Your task to perform on an android device: turn off wifi Image 0: 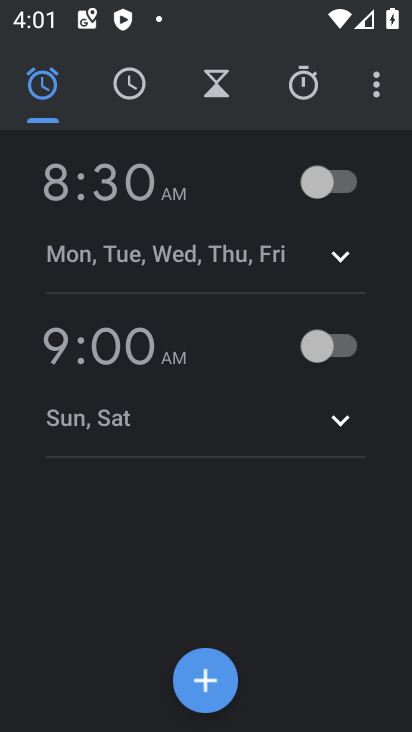
Step 0: press home button
Your task to perform on an android device: turn off wifi Image 1: 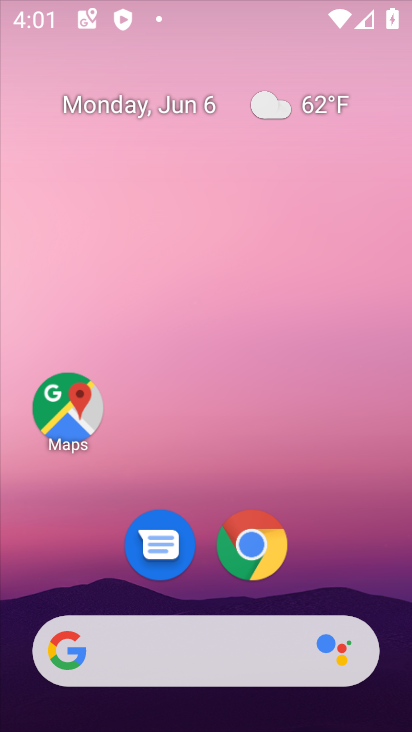
Step 1: drag from (244, 720) to (208, 95)
Your task to perform on an android device: turn off wifi Image 2: 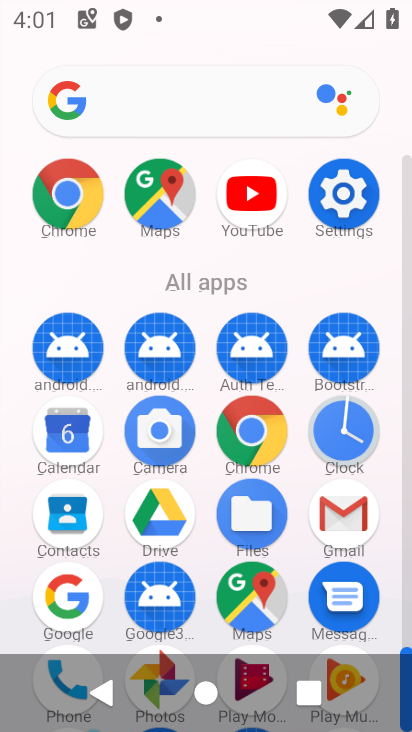
Step 2: click (331, 182)
Your task to perform on an android device: turn off wifi Image 3: 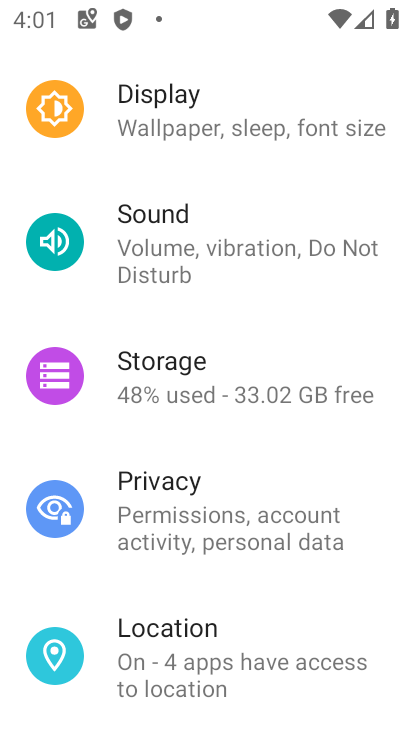
Step 3: drag from (281, 98) to (278, 578)
Your task to perform on an android device: turn off wifi Image 4: 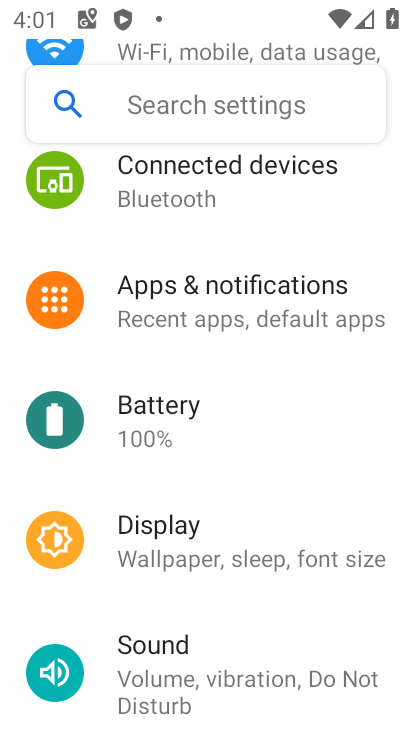
Step 4: drag from (221, 181) to (245, 599)
Your task to perform on an android device: turn off wifi Image 5: 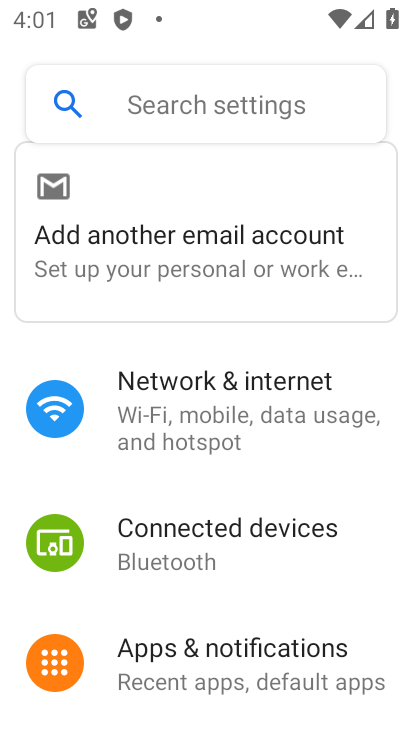
Step 5: click (160, 400)
Your task to perform on an android device: turn off wifi Image 6: 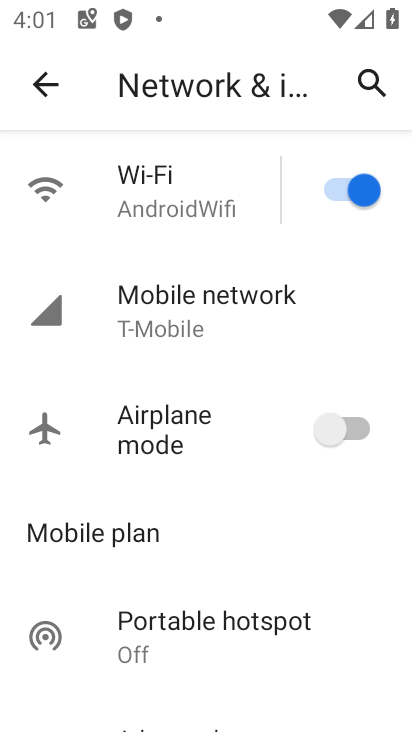
Step 6: click (340, 191)
Your task to perform on an android device: turn off wifi Image 7: 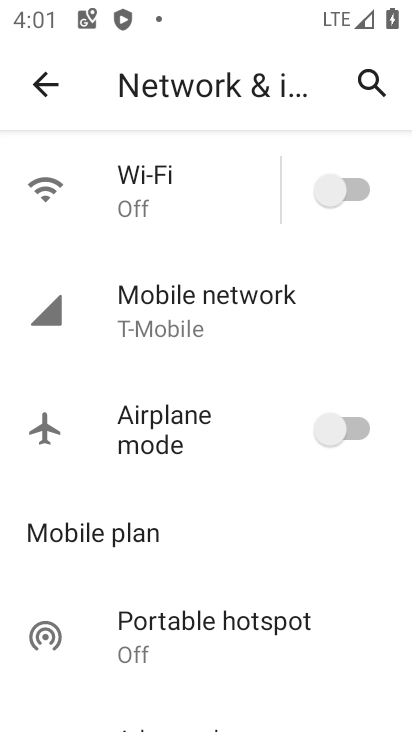
Step 7: task complete